Your task to perform on an android device: turn off priority inbox in the gmail app Image 0: 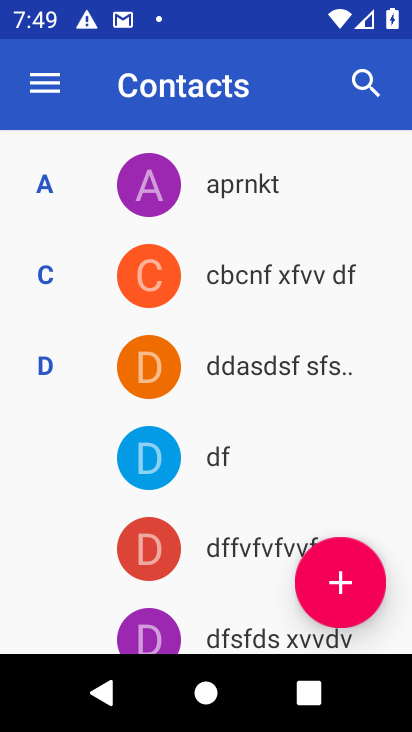
Step 0: press home button
Your task to perform on an android device: turn off priority inbox in the gmail app Image 1: 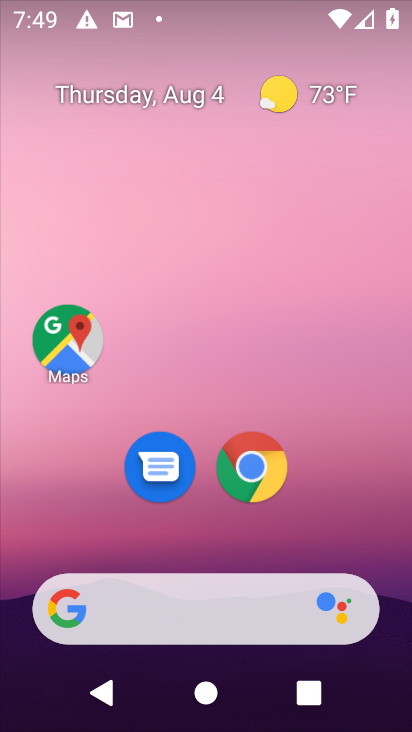
Step 1: drag from (243, 517) to (245, 124)
Your task to perform on an android device: turn off priority inbox in the gmail app Image 2: 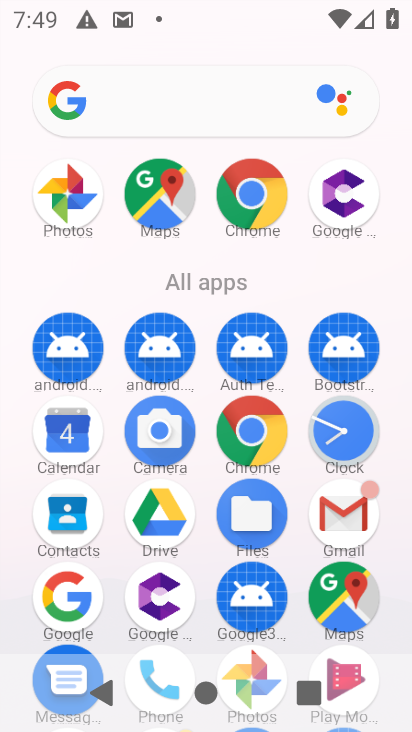
Step 2: click (341, 512)
Your task to perform on an android device: turn off priority inbox in the gmail app Image 3: 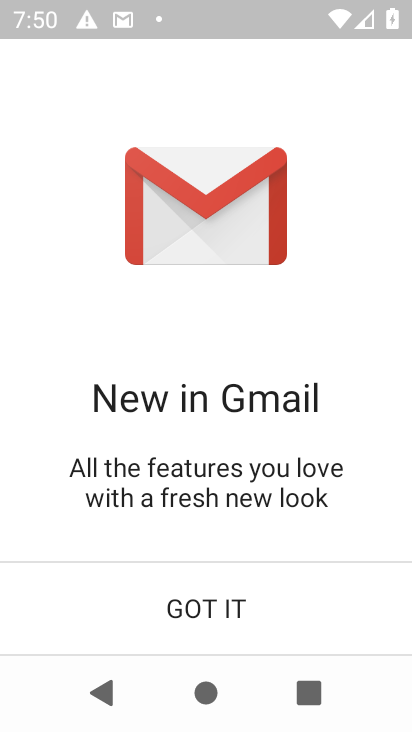
Step 3: click (243, 602)
Your task to perform on an android device: turn off priority inbox in the gmail app Image 4: 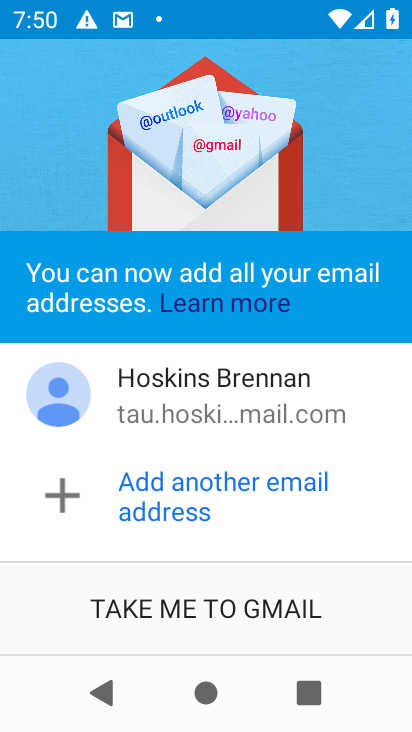
Step 4: click (243, 602)
Your task to perform on an android device: turn off priority inbox in the gmail app Image 5: 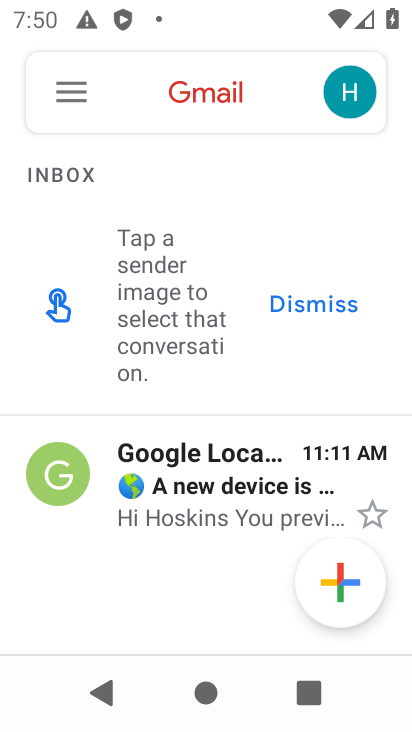
Step 5: click (67, 83)
Your task to perform on an android device: turn off priority inbox in the gmail app Image 6: 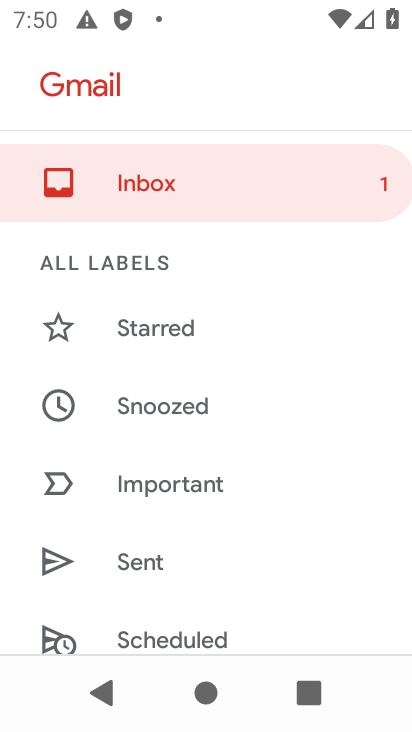
Step 6: drag from (245, 563) to (263, 175)
Your task to perform on an android device: turn off priority inbox in the gmail app Image 7: 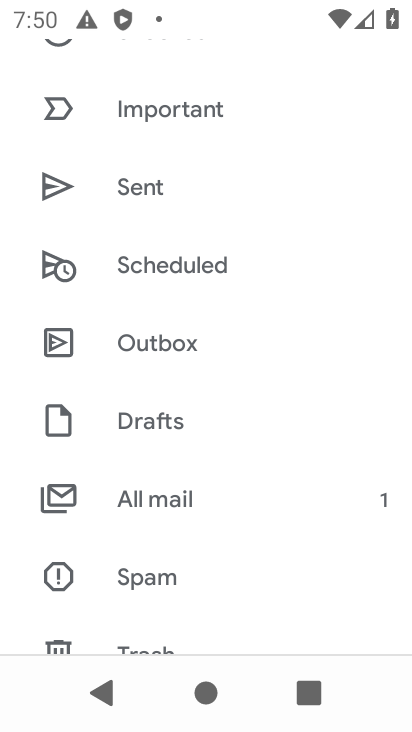
Step 7: drag from (252, 570) to (254, 209)
Your task to perform on an android device: turn off priority inbox in the gmail app Image 8: 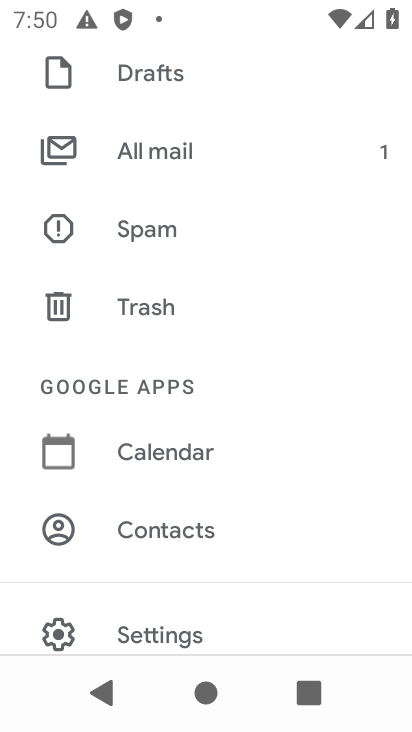
Step 8: click (164, 624)
Your task to perform on an android device: turn off priority inbox in the gmail app Image 9: 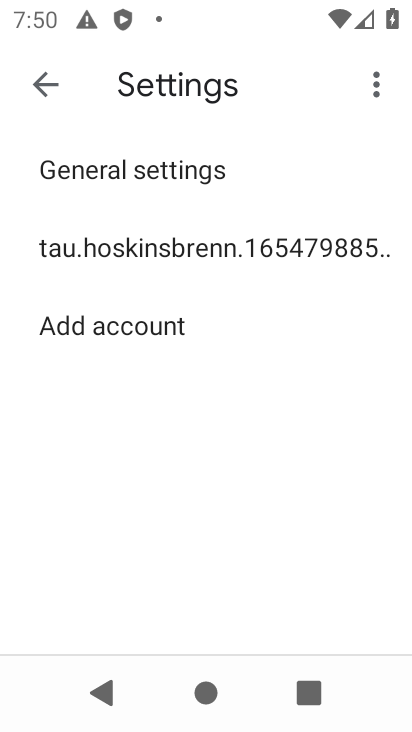
Step 9: click (196, 242)
Your task to perform on an android device: turn off priority inbox in the gmail app Image 10: 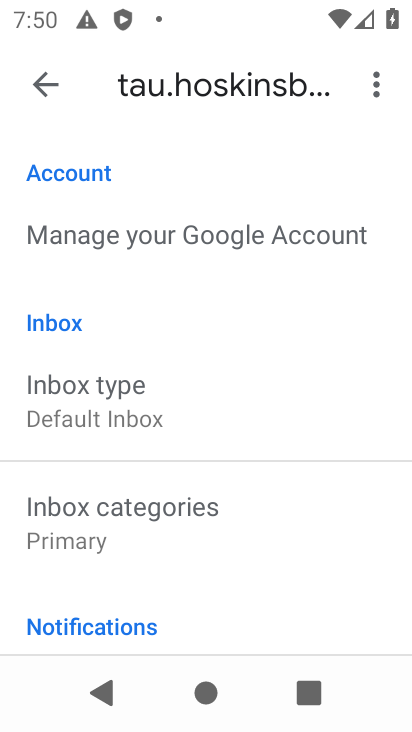
Step 10: drag from (228, 582) to (262, 312)
Your task to perform on an android device: turn off priority inbox in the gmail app Image 11: 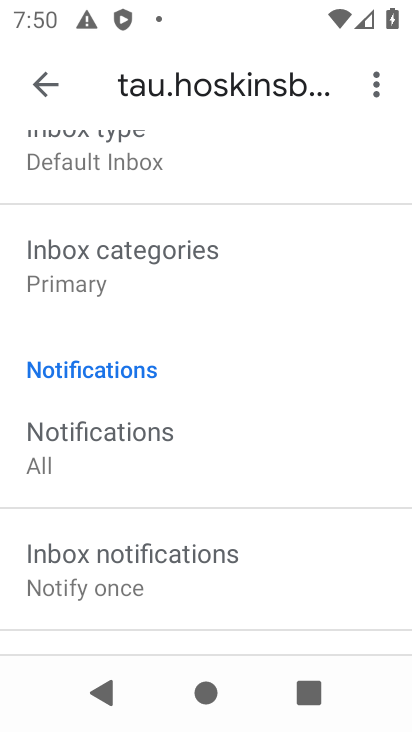
Step 11: click (88, 159)
Your task to perform on an android device: turn off priority inbox in the gmail app Image 12: 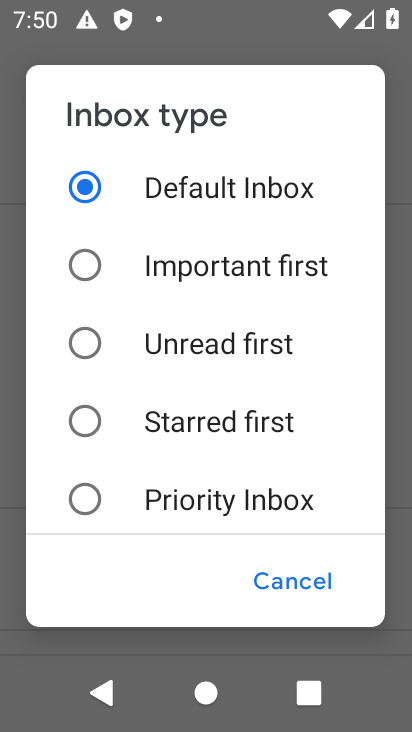
Step 12: click (254, 183)
Your task to perform on an android device: turn off priority inbox in the gmail app Image 13: 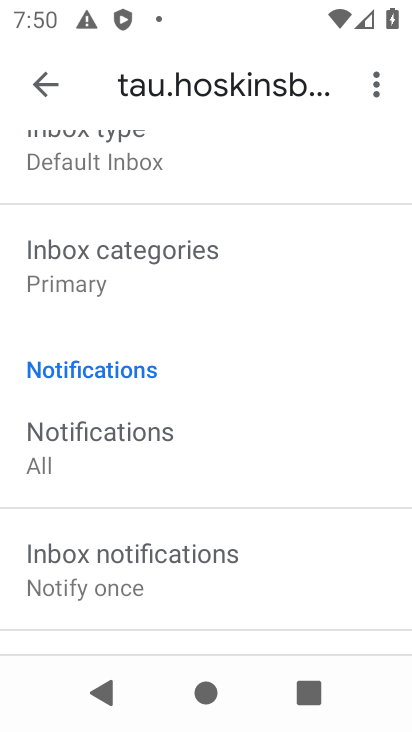
Step 13: task complete